Your task to perform on an android device: Open battery settings Image 0: 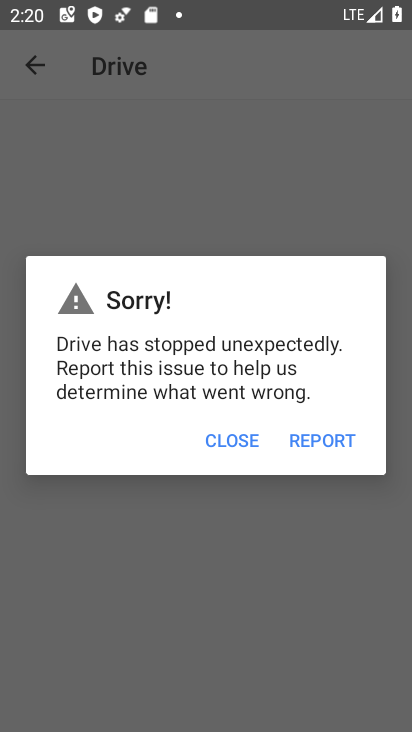
Step 0: press home button
Your task to perform on an android device: Open battery settings Image 1: 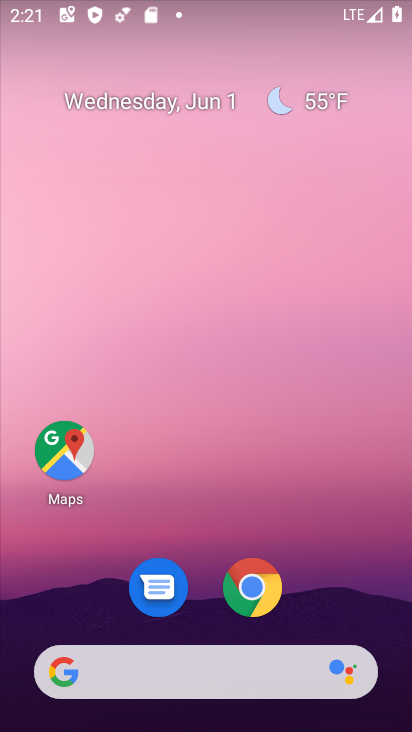
Step 1: drag from (221, 657) to (190, 112)
Your task to perform on an android device: Open battery settings Image 2: 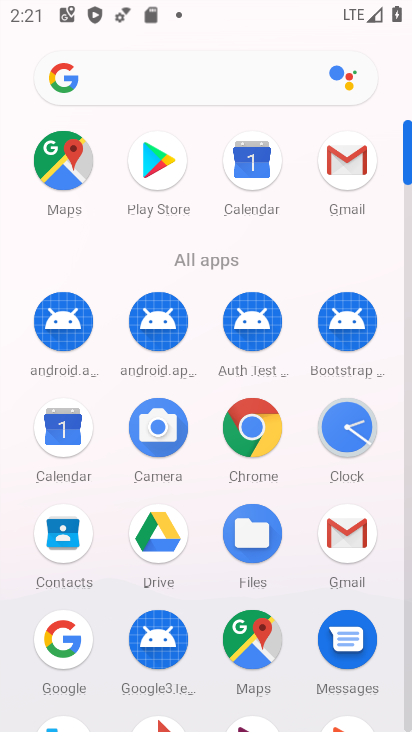
Step 2: drag from (151, 575) to (102, 117)
Your task to perform on an android device: Open battery settings Image 3: 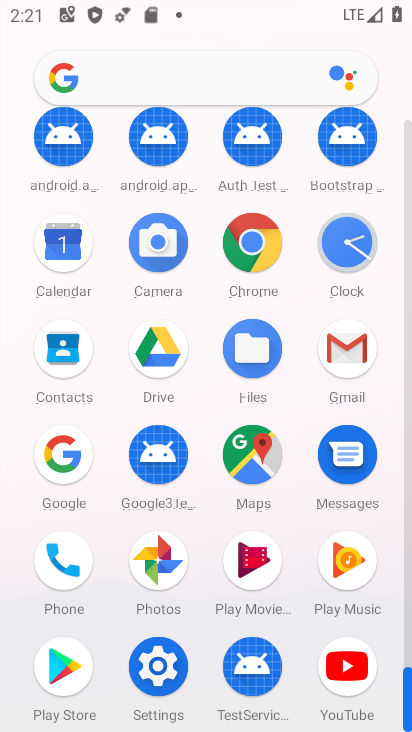
Step 3: click (168, 686)
Your task to perform on an android device: Open battery settings Image 4: 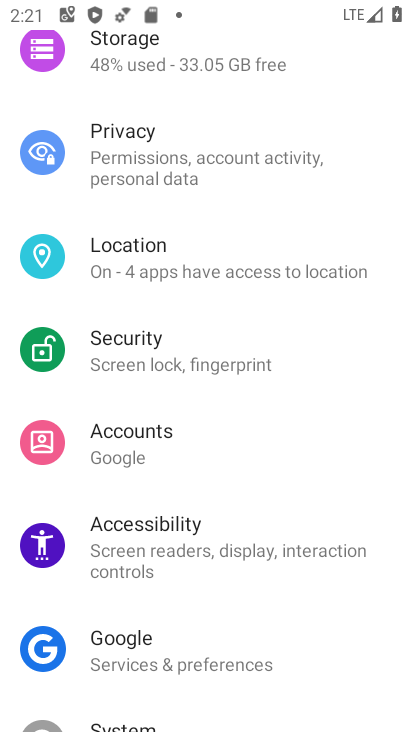
Step 4: drag from (176, 450) to (146, 46)
Your task to perform on an android device: Open battery settings Image 5: 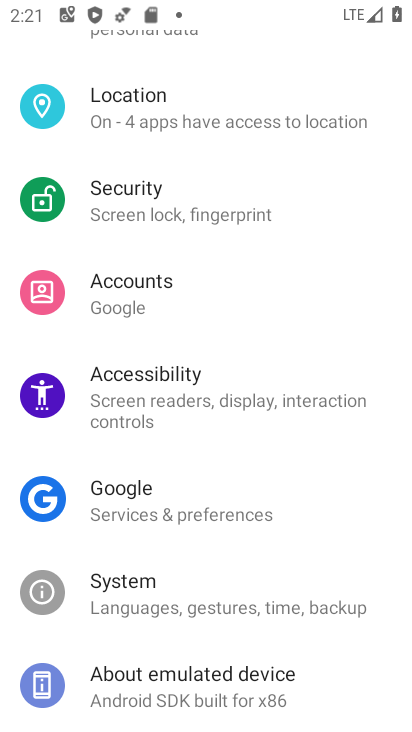
Step 5: drag from (136, 219) to (160, 693)
Your task to perform on an android device: Open battery settings Image 6: 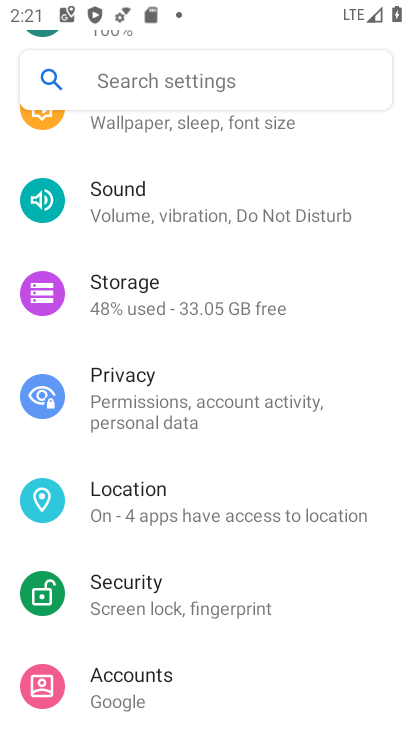
Step 6: drag from (142, 201) to (214, 629)
Your task to perform on an android device: Open battery settings Image 7: 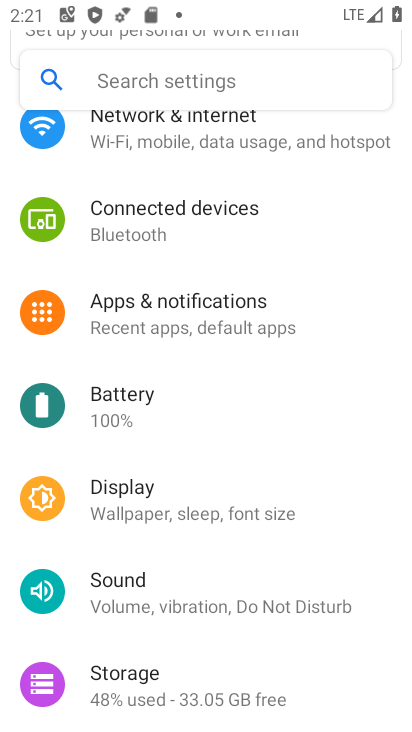
Step 7: click (134, 394)
Your task to perform on an android device: Open battery settings Image 8: 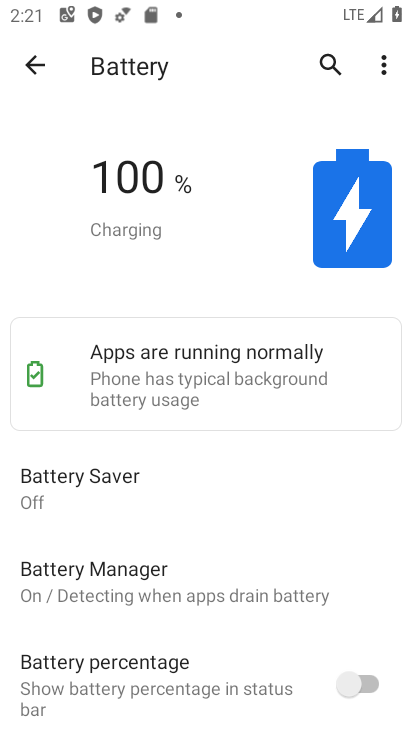
Step 8: task complete